Your task to perform on an android device: Search for "macbook air" on costco, select the first entry, add it to the cart, then select checkout. Image 0: 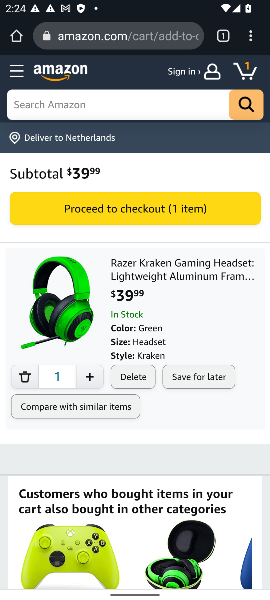
Step 0: click (86, 38)
Your task to perform on an android device: Search for "macbook air" on costco, select the first entry, add it to the cart, then select checkout. Image 1: 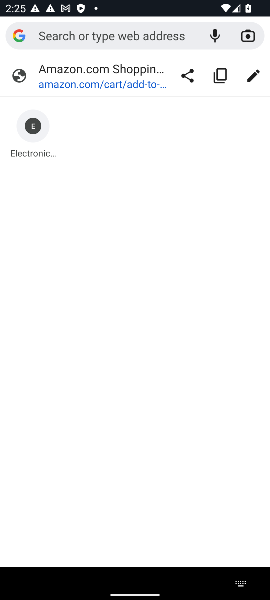
Step 1: type "costco.com"
Your task to perform on an android device: Search for "macbook air" on costco, select the first entry, add it to the cart, then select checkout. Image 2: 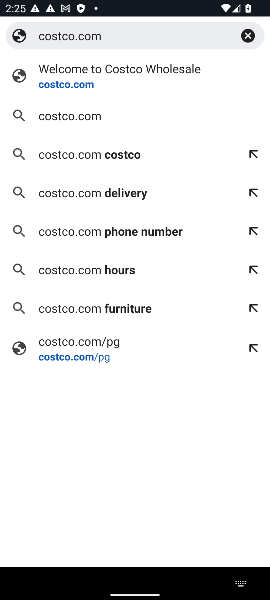
Step 2: click (53, 87)
Your task to perform on an android device: Search for "macbook air" on costco, select the first entry, add it to the cart, then select checkout. Image 3: 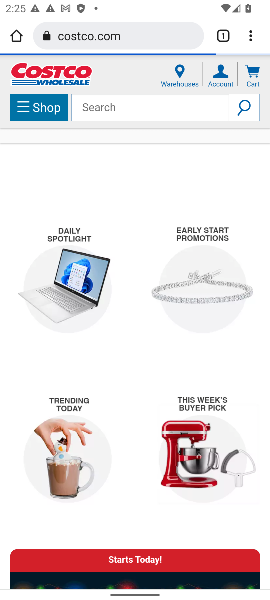
Step 3: click (93, 104)
Your task to perform on an android device: Search for "macbook air" on costco, select the first entry, add it to the cart, then select checkout. Image 4: 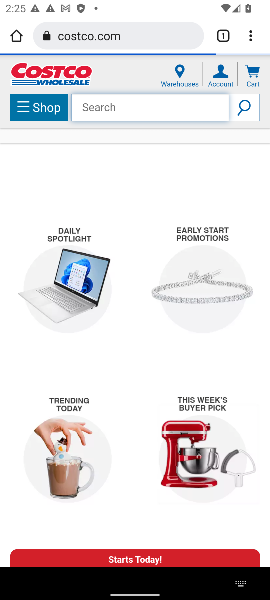
Step 4: type "macbook air"
Your task to perform on an android device: Search for "macbook air" on costco, select the first entry, add it to the cart, then select checkout. Image 5: 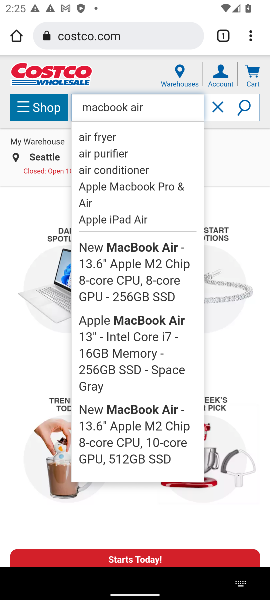
Step 5: click (242, 112)
Your task to perform on an android device: Search for "macbook air" on costco, select the first entry, add it to the cart, then select checkout. Image 6: 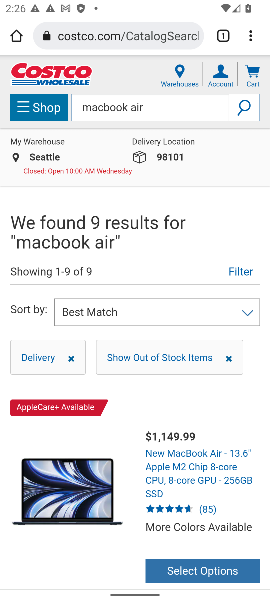
Step 6: click (88, 488)
Your task to perform on an android device: Search for "macbook air" on costco, select the first entry, add it to the cart, then select checkout. Image 7: 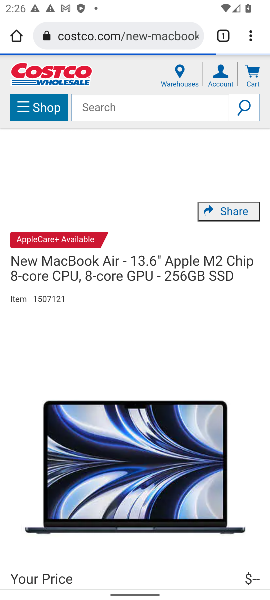
Step 7: drag from (124, 454) to (106, 119)
Your task to perform on an android device: Search for "macbook air" on costco, select the first entry, add it to the cart, then select checkout. Image 8: 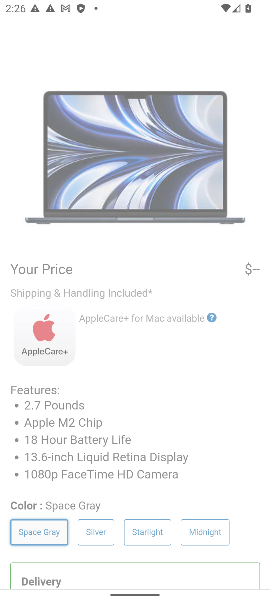
Step 8: drag from (101, 424) to (115, 220)
Your task to perform on an android device: Search for "macbook air" on costco, select the first entry, add it to the cart, then select checkout. Image 9: 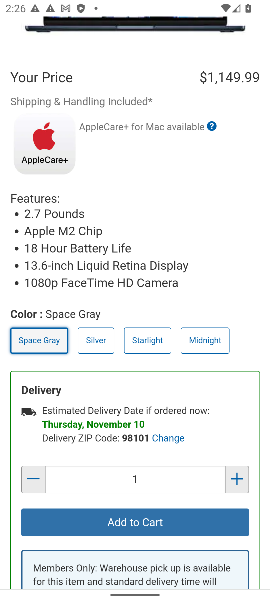
Step 9: drag from (108, 414) to (115, 303)
Your task to perform on an android device: Search for "macbook air" on costco, select the first entry, add it to the cart, then select checkout. Image 10: 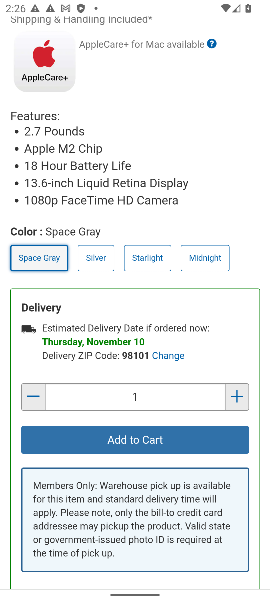
Step 10: click (128, 440)
Your task to perform on an android device: Search for "macbook air" on costco, select the first entry, add it to the cart, then select checkout. Image 11: 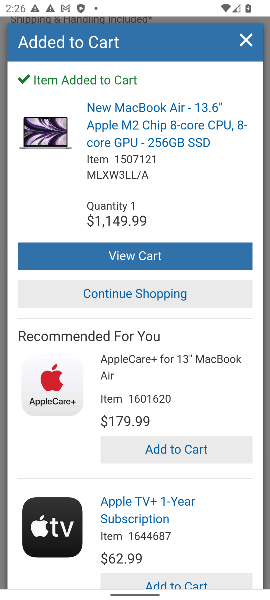
Step 11: click (124, 252)
Your task to perform on an android device: Search for "macbook air" on costco, select the first entry, add it to the cart, then select checkout. Image 12: 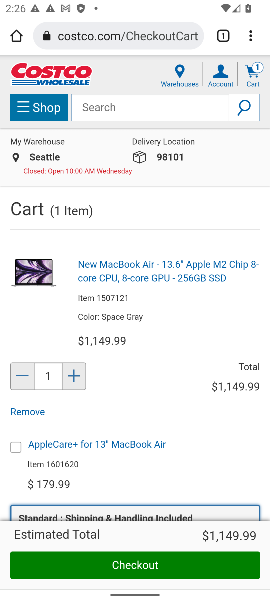
Step 12: click (129, 568)
Your task to perform on an android device: Search for "macbook air" on costco, select the first entry, add it to the cart, then select checkout. Image 13: 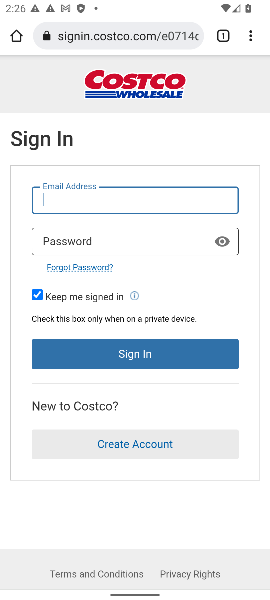
Step 13: task complete